Your task to perform on an android device: Set the phone to "Do not disturb". Image 0: 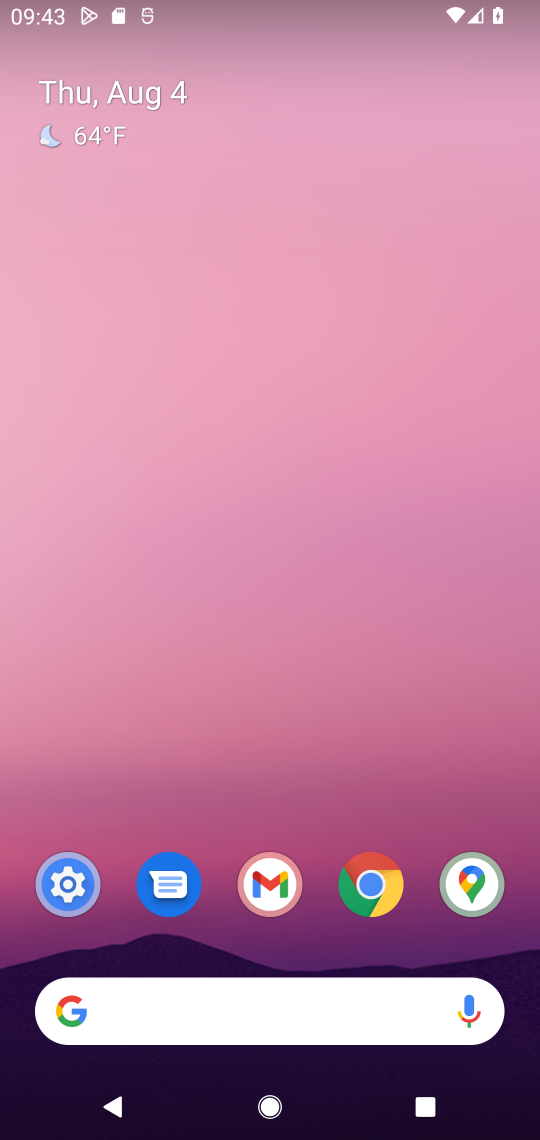
Step 0: drag from (129, 324) to (134, 87)
Your task to perform on an android device: Set the phone to "Do not disturb". Image 1: 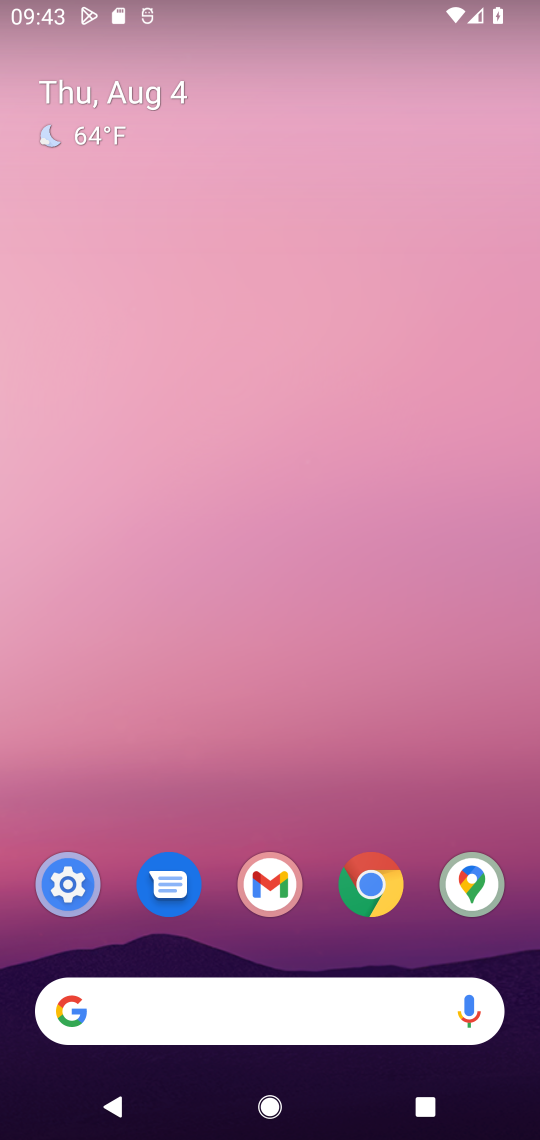
Step 1: drag from (183, 1022) to (105, 140)
Your task to perform on an android device: Set the phone to "Do not disturb". Image 2: 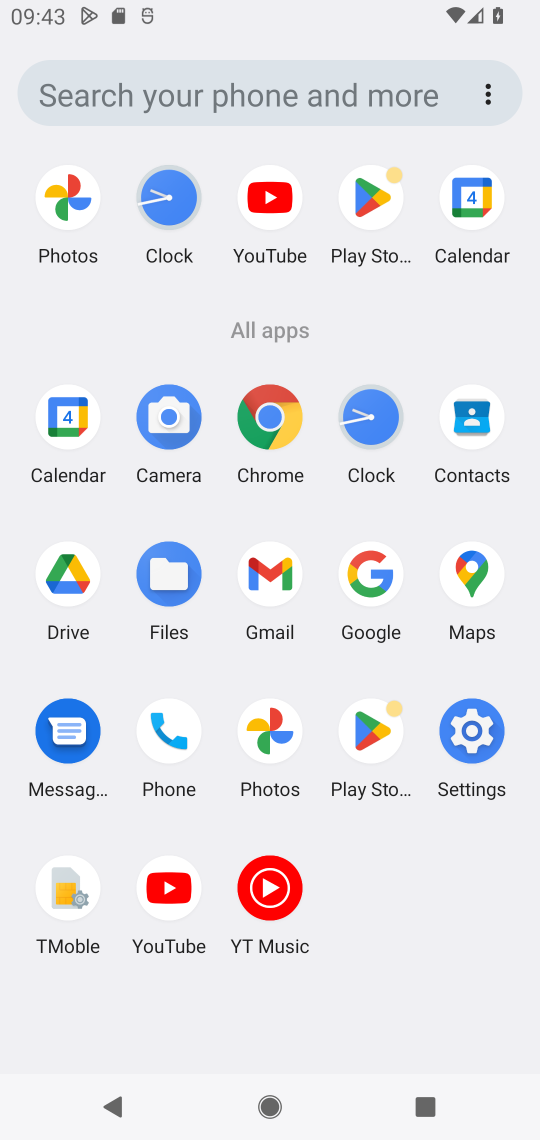
Step 2: click (459, 722)
Your task to perform on an android device: Set the phone to "Do not disturb". Image 3: 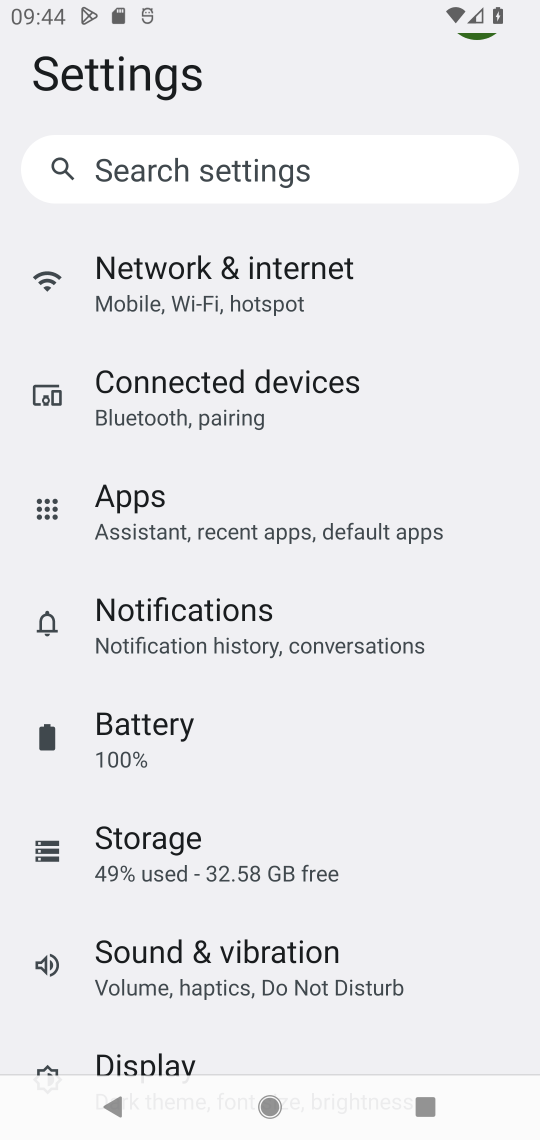
Step 3: click (300, 987)
Your task to perform on an android device: Set the phone to "Do not disturb". Image 4: 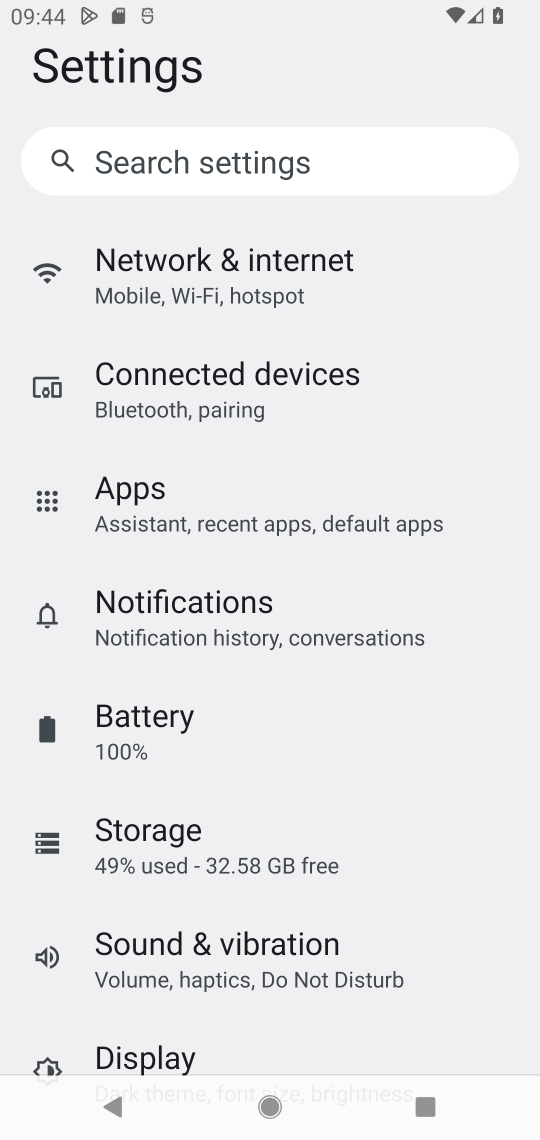
Step 4: click (326, 971)
Your task to perform on an android device: Set the phone to "Do not disturb". Image 5: 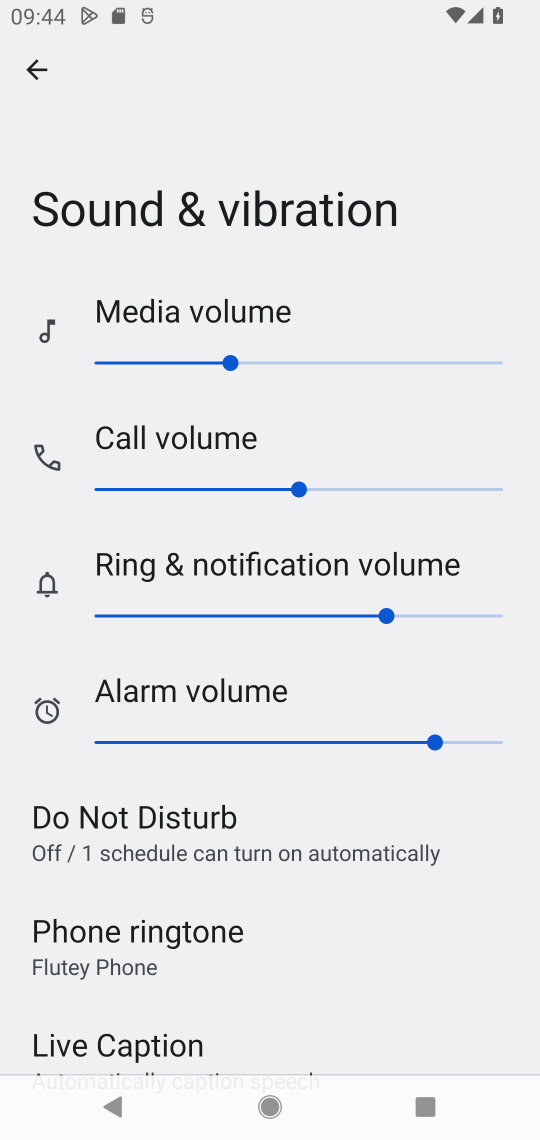
Step 5: click (247, 844)
Your task to perform on an android device: Set the phone to "Do not disturb". Image 6: 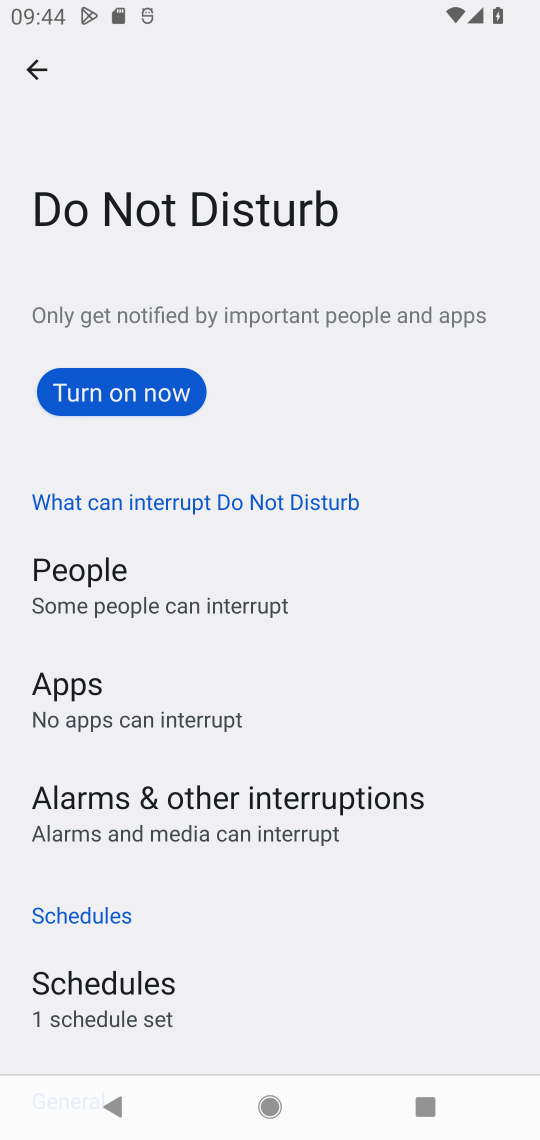
Step 6: click (94, 396)
Your task to perform on an android device: Set the phone to "Do not disturb". Image 7: 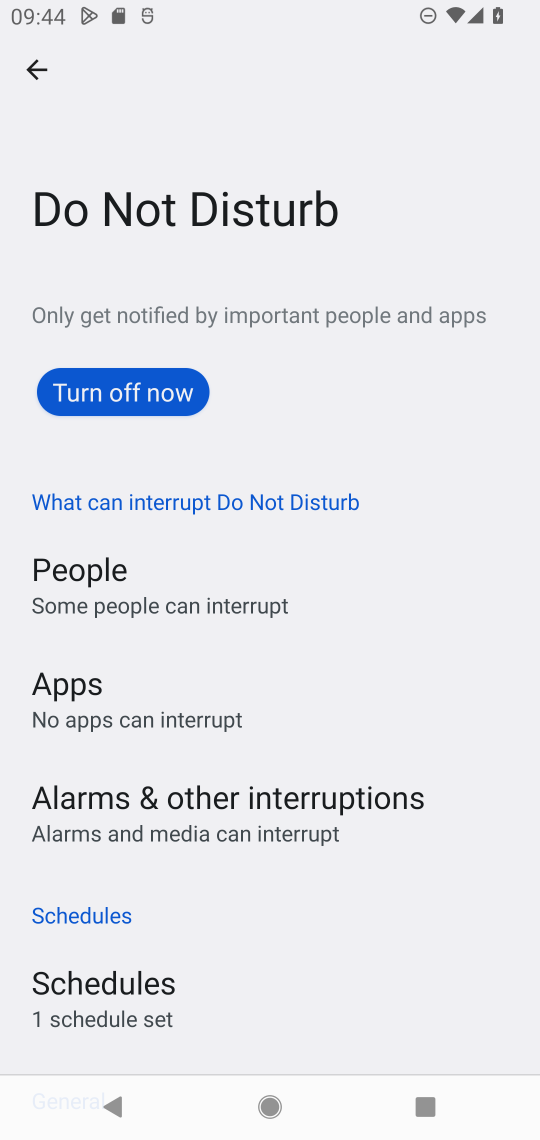
Step 7: task complete